Your task to perform on an android device: Do I have any events today? Image 0: 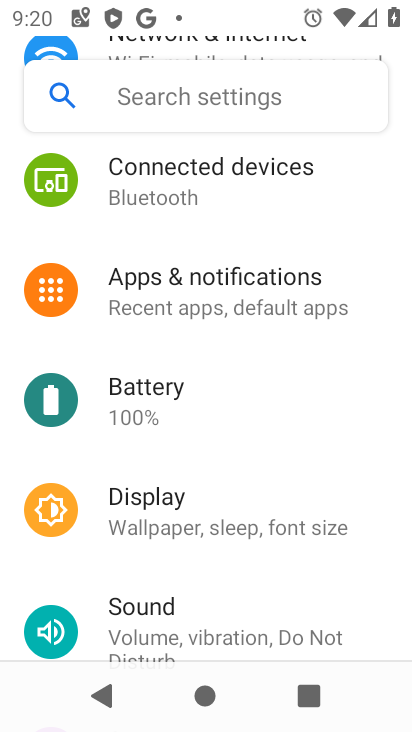
Step 0: press home button
Your task to perform on an android device: Do I have any events today? Image 1: 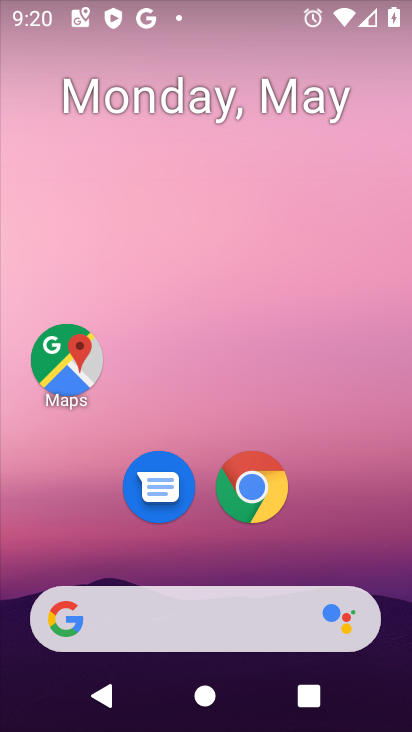
Step 1: click (227, 97)
Your task to perform on an android device: Do I have any events today? Image 2: 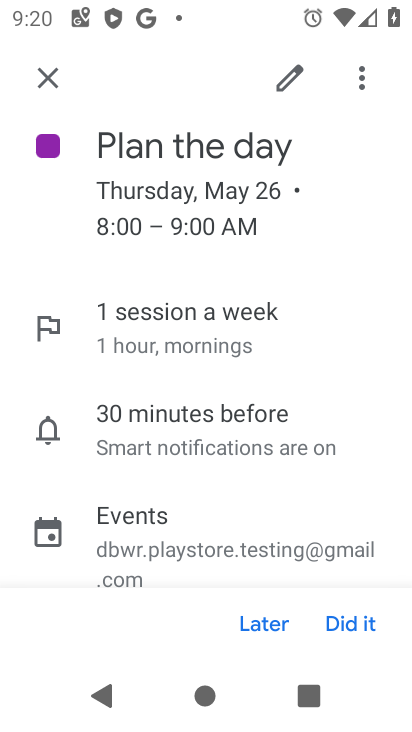
Step 2: click (49, 85)
Your task to perform on an android device: Do I have any events today? Image 3: 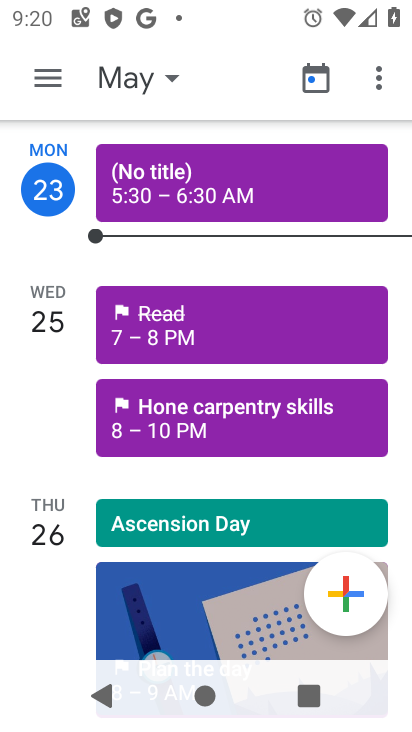
Step 3: click (117, 95)
Your task to perform on an android device: Do I have any events today? Image 4: 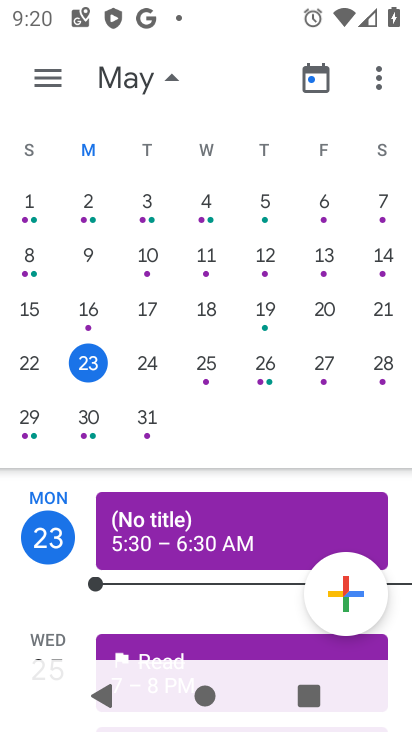
Step 4: click (80, 374)
Your task to perform on an android device: Do I have any events today? Image 5: 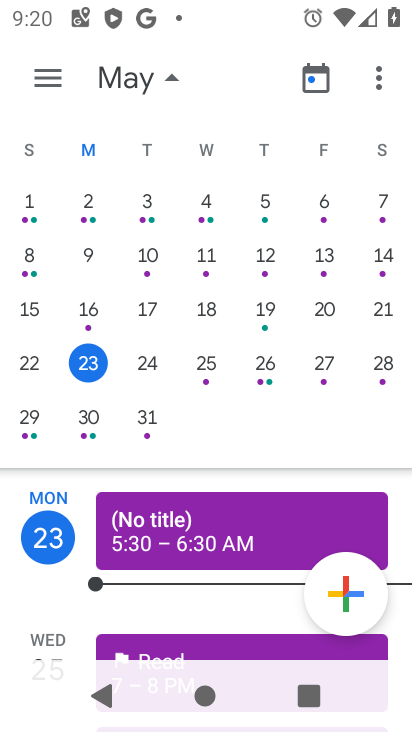
Step 5: task complete